Your task to perform on an android device: change notifications settings Image 0: 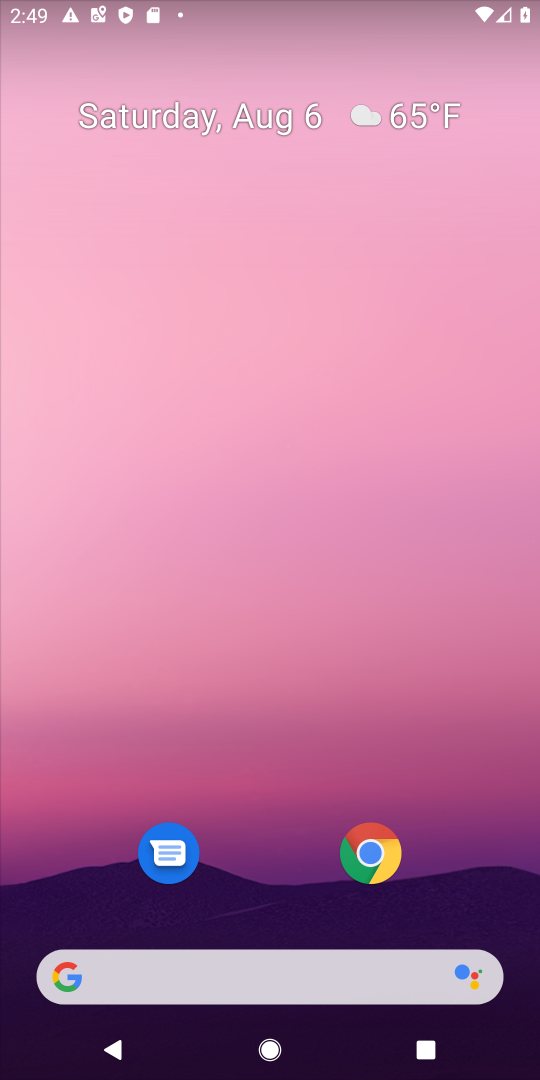
Step 0: drag from (253, 909) to (293, 141)
Your task to perform on an android device: change notifications settings Image 1: 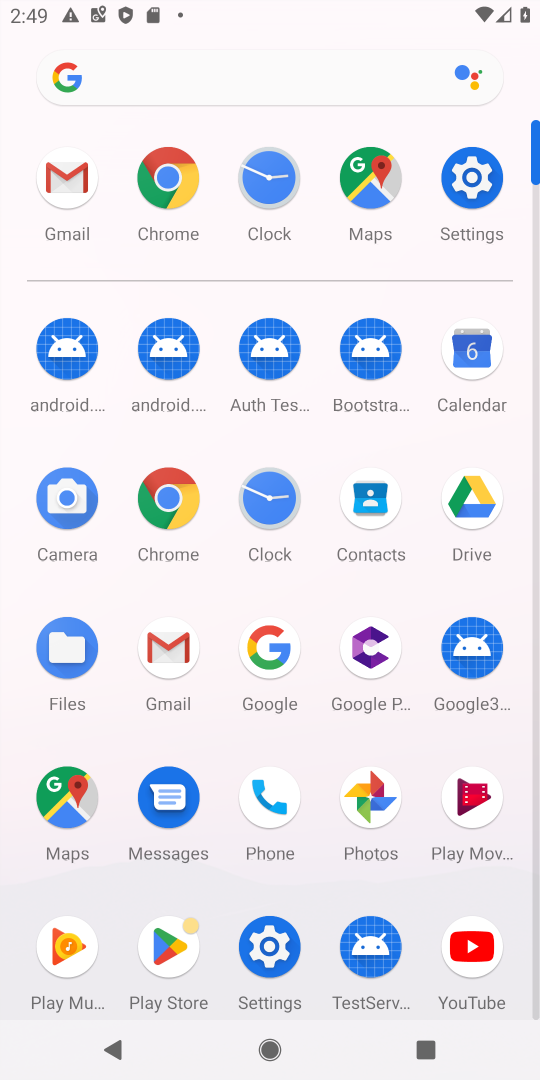
Step 1: click (452, 159)
Your task to perform on an android device: change notifications settings Image 2: 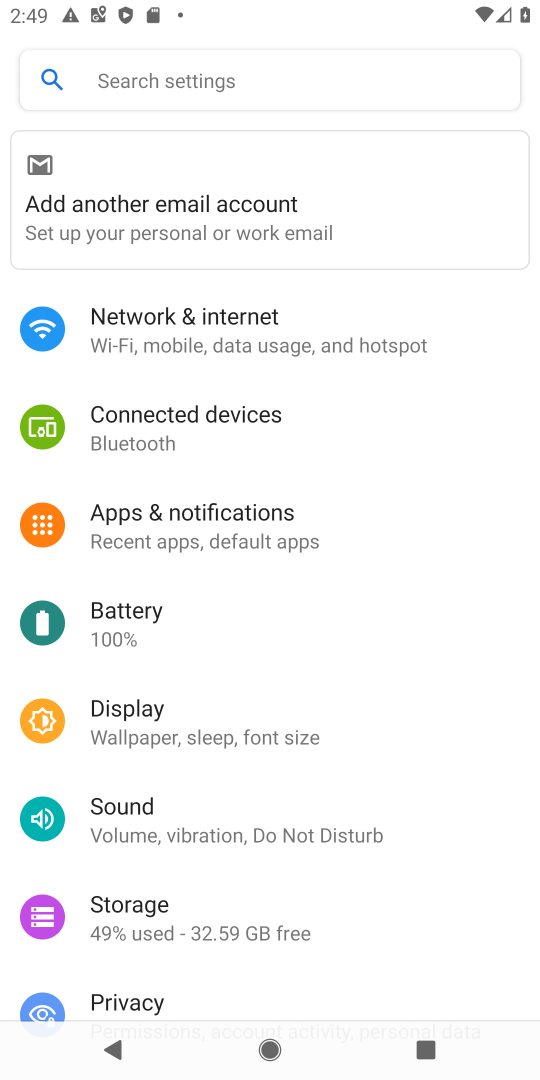
Step 2: click (180, 532)
Your task to perform on an android device: change notifications settings Image 3: 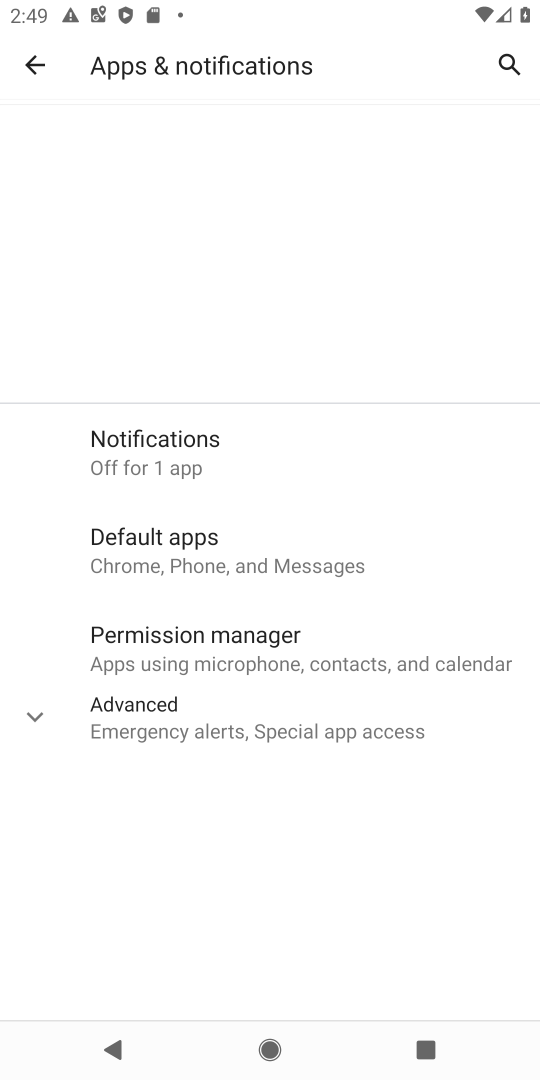
Step 3: drag from (256, 908) to (348, 286)
Your task to perform on an android device: change notifications settings Image 4: 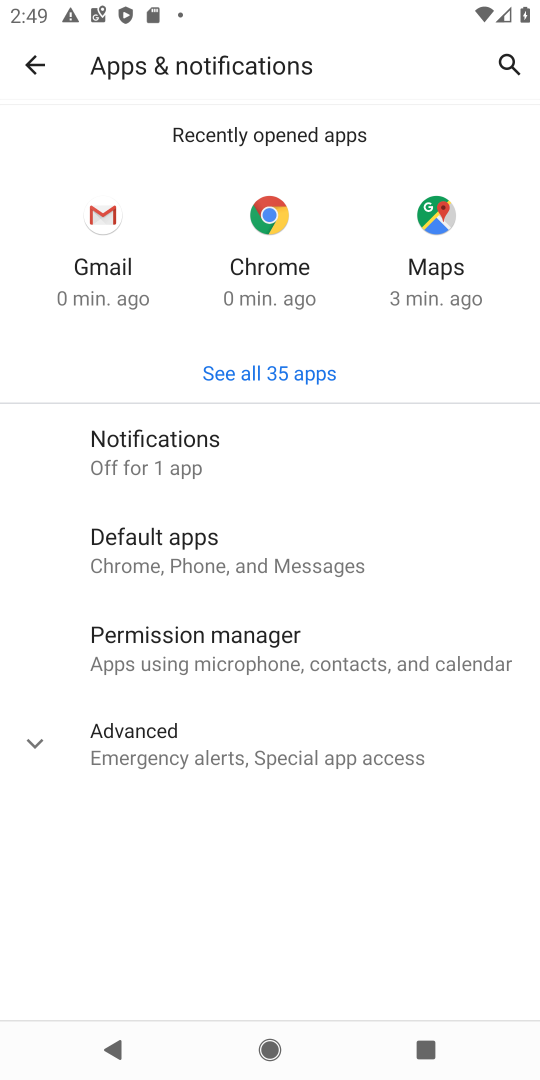
Step 4: click (190, 448)
Your task to perform on an android device: change notifications settings Image 5: 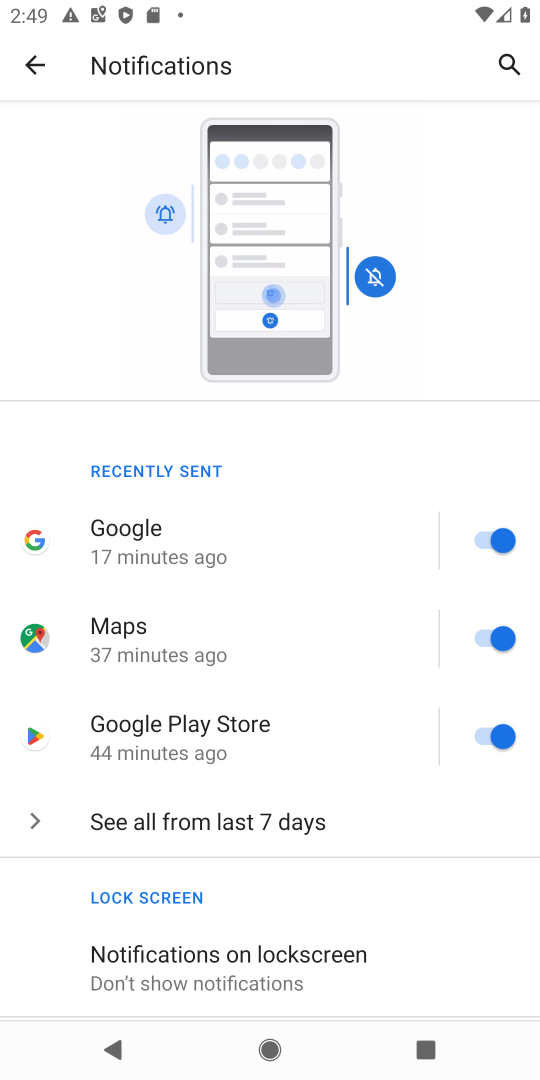
Step 5: drag from (230, 941) to (344, 178)
Your task to perform on an android device: change notifications settings Image 6: 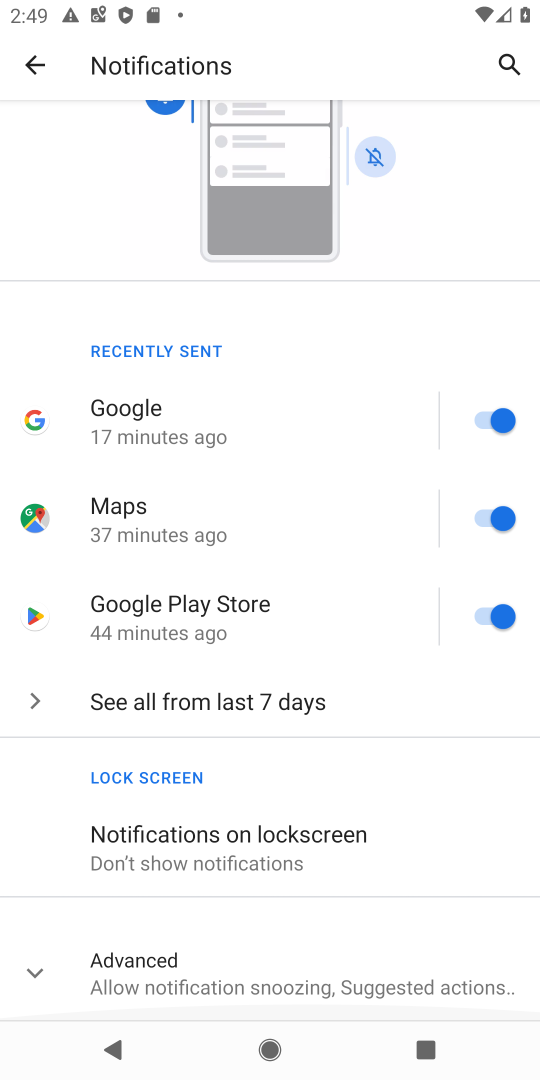
Step 6: click (303, 967)
Your task to perform on an android device: change notifications settings Image 7: 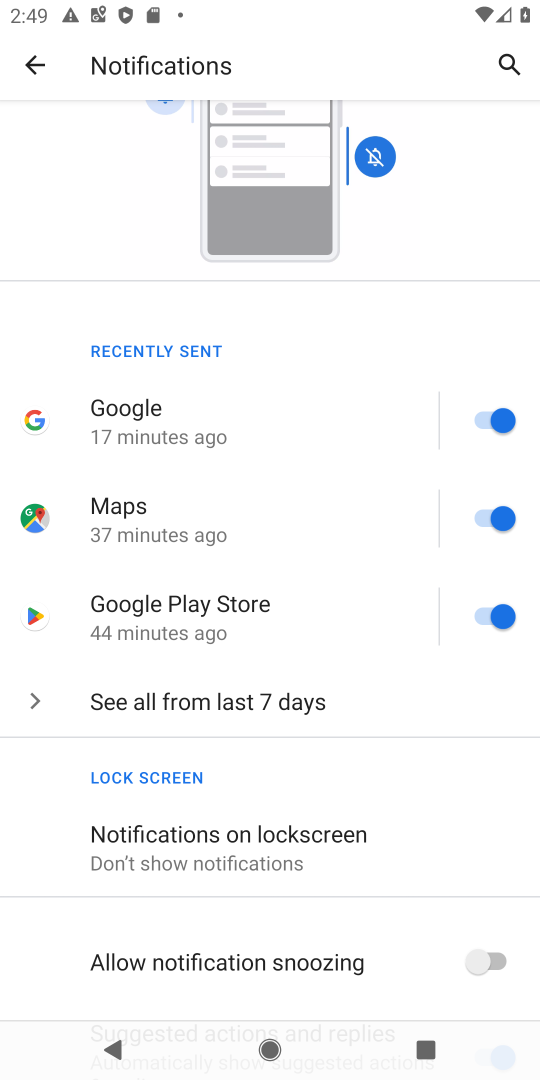
Step 7: drag from (214, 820) to (265, 439)
Your task to perform on an android device: change notifications settings Image 8: 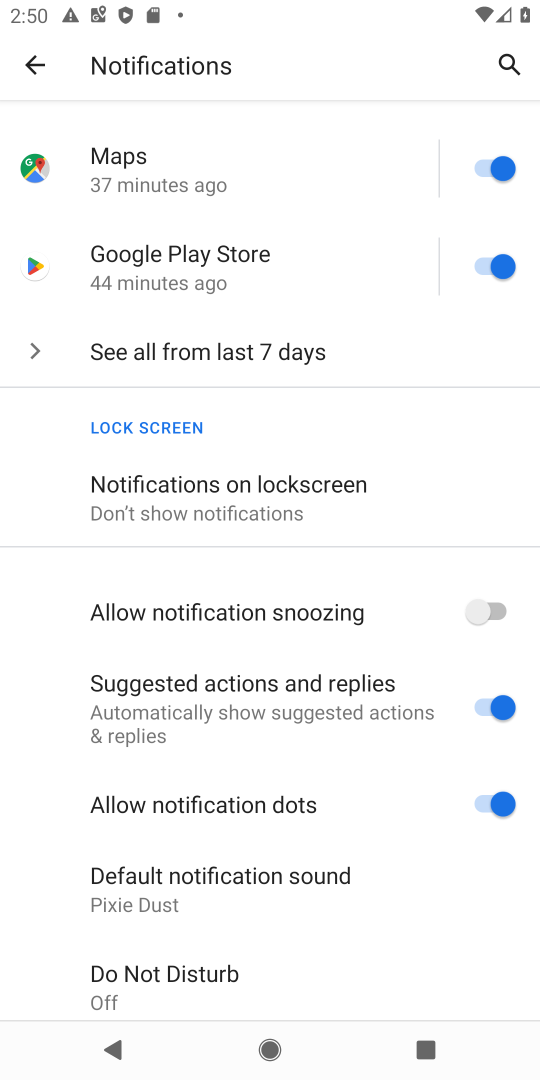
Step 8: click (478, 612)
Your task to perform on an android device: change notifications settings Image 9: 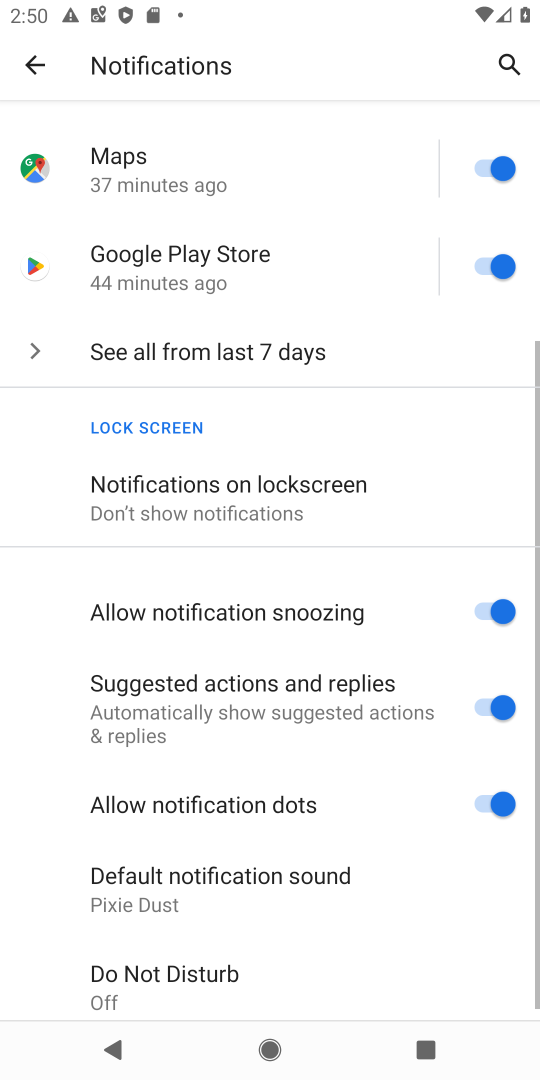
Step 9: task complete